Your task to perform on an android device: clear all cookies in the chrome app Image 0: 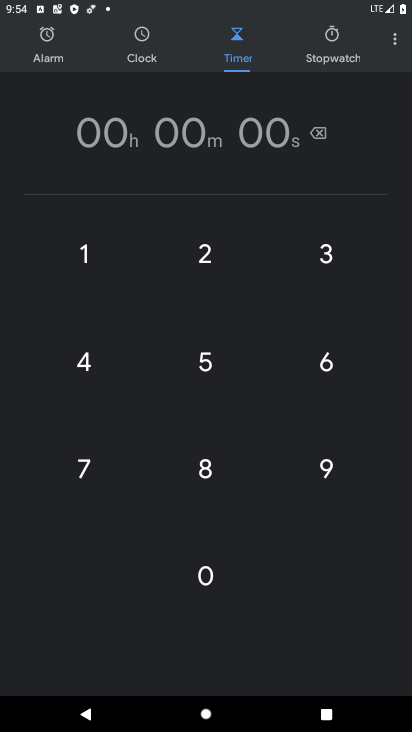
Step 0: press home button
Your task to perform on an android device: clear all cookies in the chrome app Image 1: 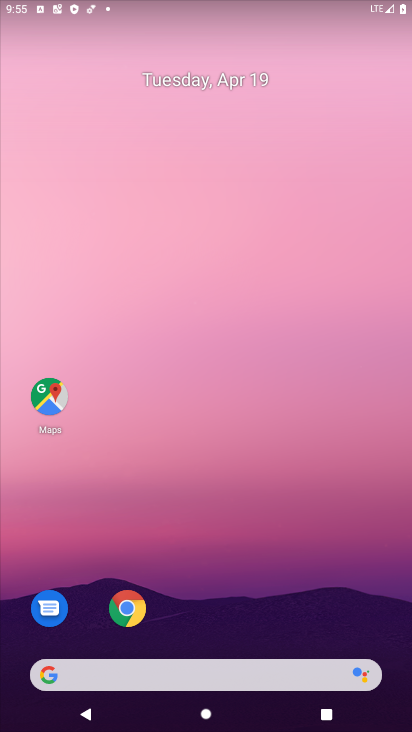
Step 1: click (123, 604)
Your task to perform on an android device: clear all cookies in the chrome app Image 2: 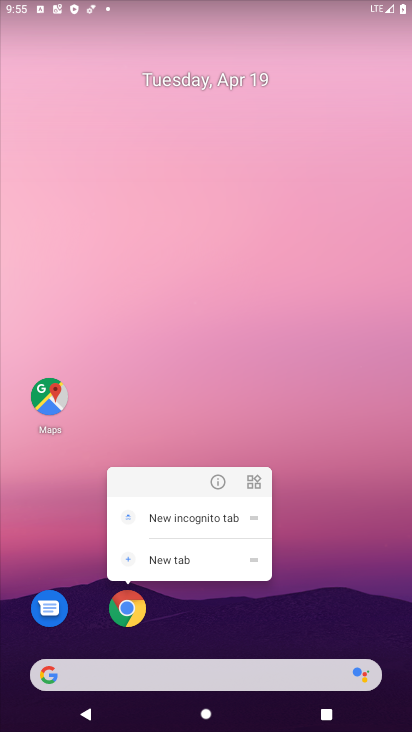
Step 2: click (127, 607)
Your task to perform on an android device: clear all cookies in the chrome app Image 3: 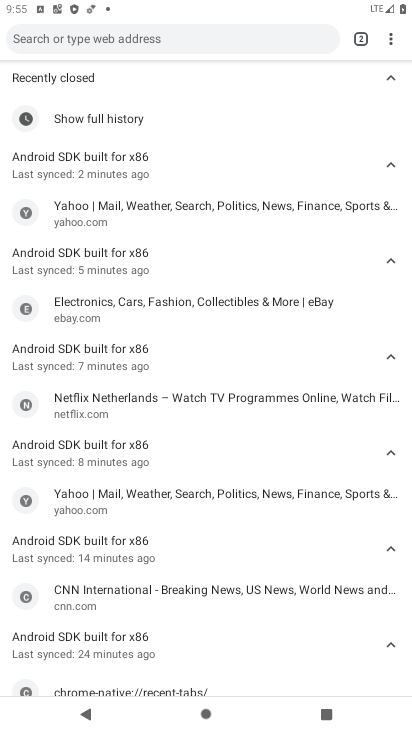
Step 3: click (388, 38)
Your task to perform on an android device: clear all cookies in the chrome app Image 4: 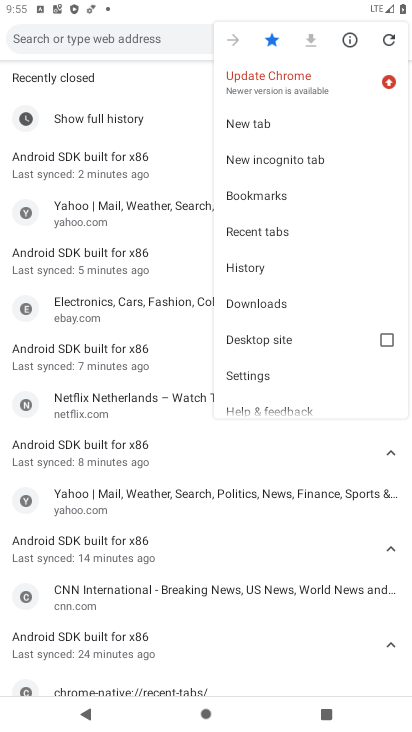
Step 4: click (247, 258)
Your task to perform on an android device: clear all cookies in the chrome app Image 5: 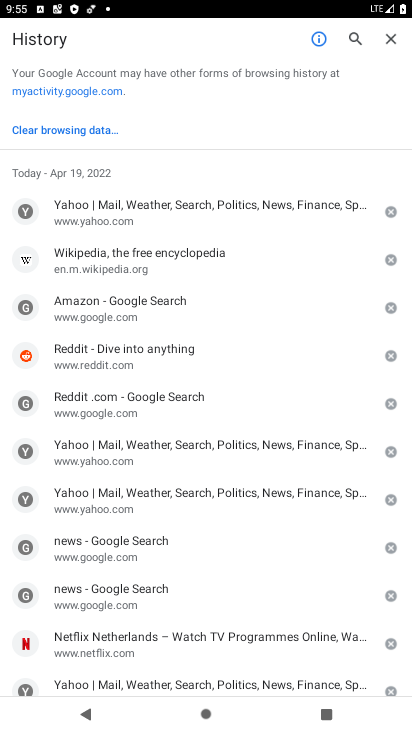
Step 5: click (56, 134)
Your task to perform on an android device: clear all cookies in the chrome app Image 6: 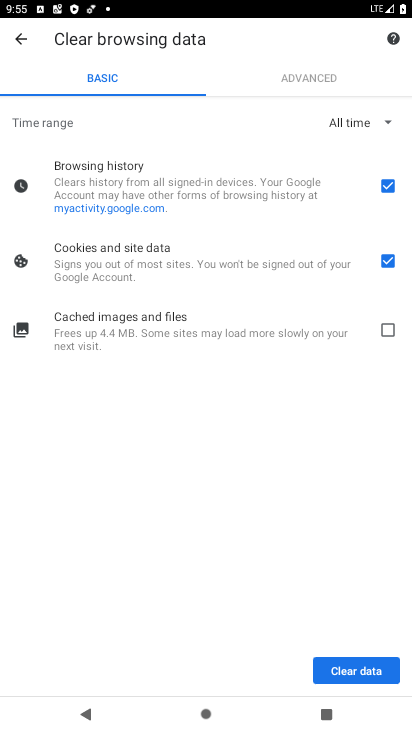
Step 6: click (386, 185)
Your task to perform on an android device: clear all cookies in the chrome app Image 7: 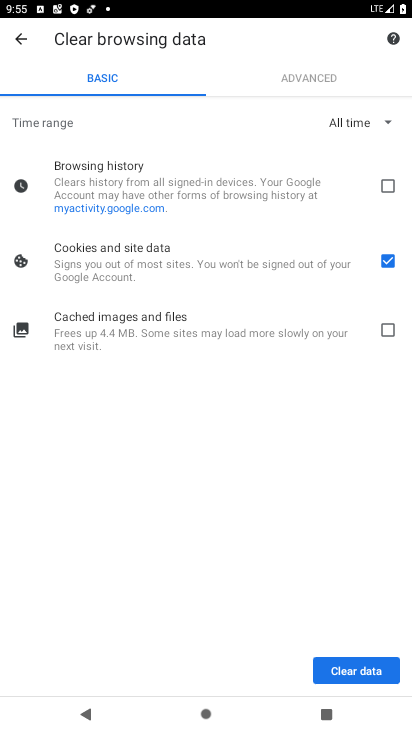
Step 7: click (357, 672)
Your task to perform on an android device: clear all cookies in the chrome app Image 8: 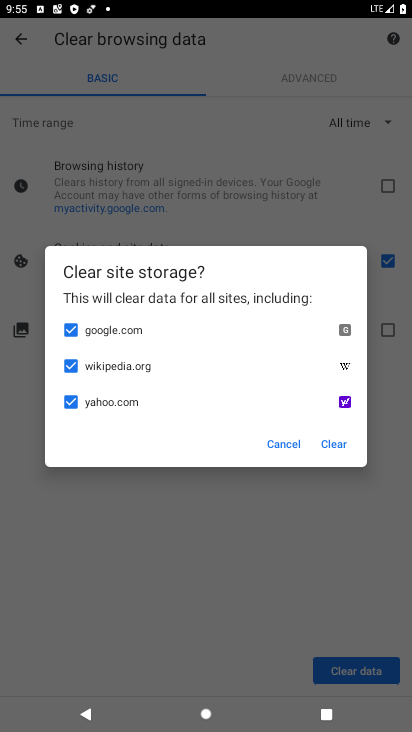
Step 8: click (328, 444)
Your task to perform on an android device: clear all cookies in the chrome app Image 9: 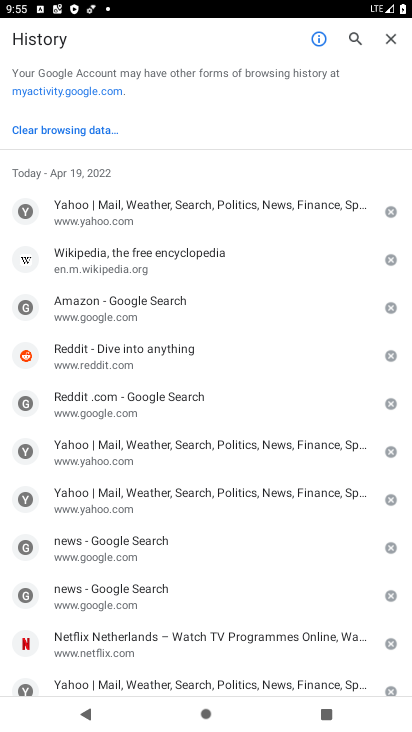
Step 9: task complete